Your task to perform on an android device: open sync settings in chrome Image 0: 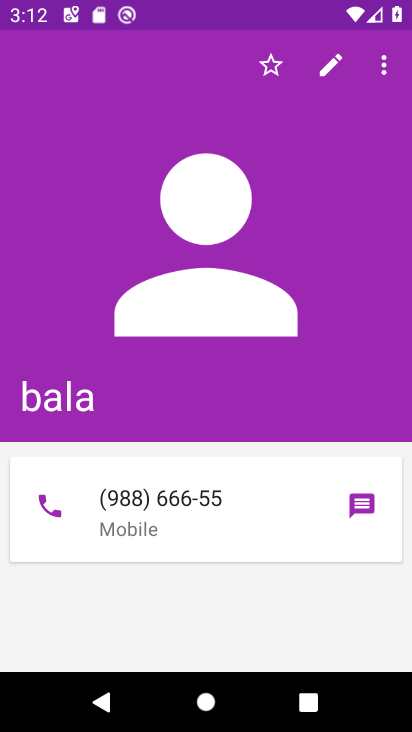
Step 0: press home button
Your task to perform on an android device: open sync settings in chrome Image 1: 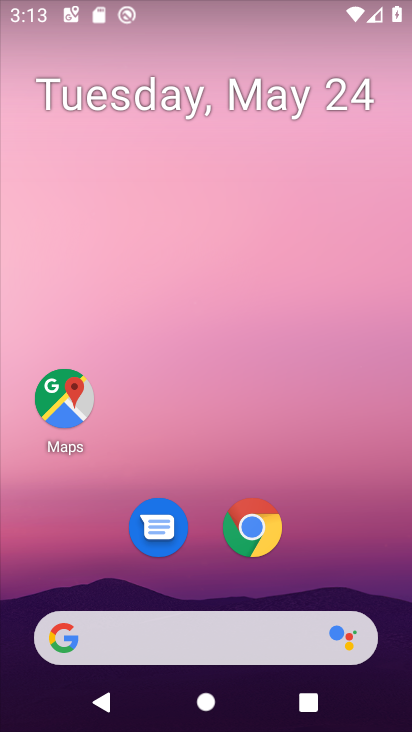
Step 1: click (254, 529)
Your task to perform on an android device: open sync settings in chrome Image 2: 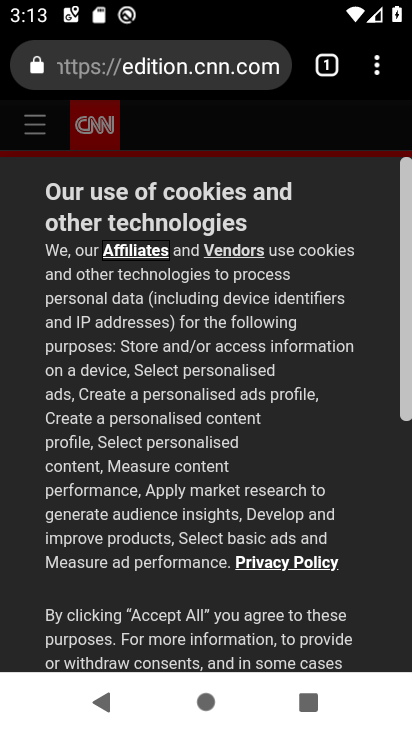
Step 2: click (379, 70)
Your task to perform on an android device: open sync settings in chrome Image 3: 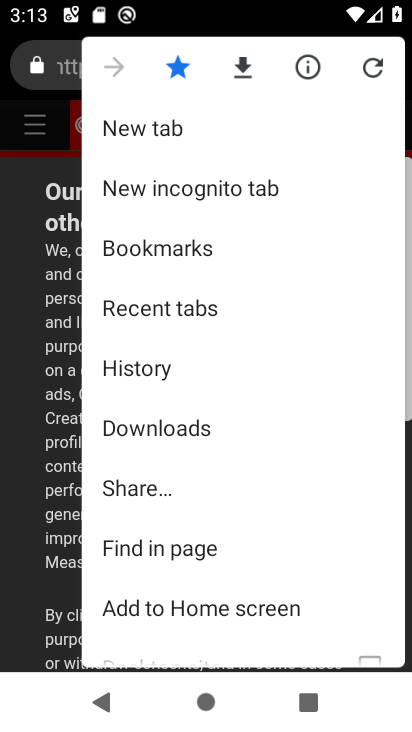
Step 3: drag from (287, 570) to (278, 348)
Your task to perform on an android device: open sync settings in chrome Image 4: 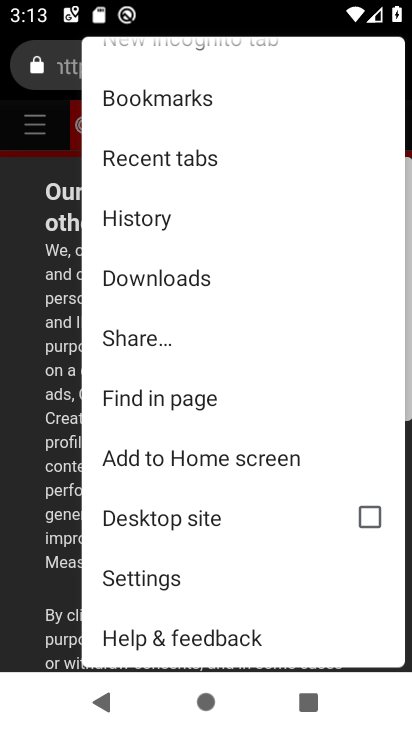
Step 4: click (125, 576)
Your task to perform on an android device: open sync settings in chrome Image 5: 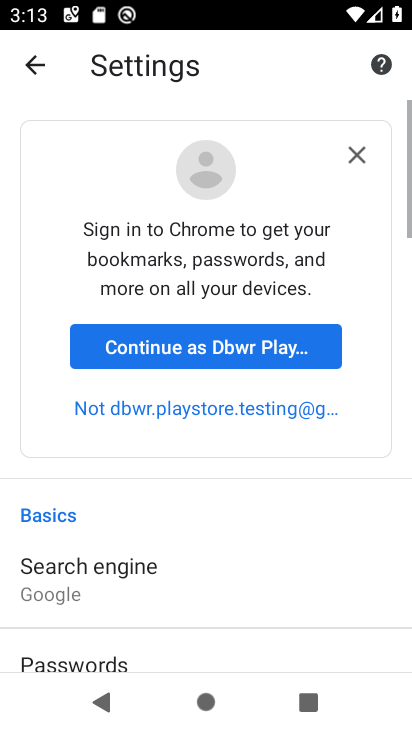
Step 5: click (204, 344)
Your task to perform on an android device: open sync settings in chrome Image 6: 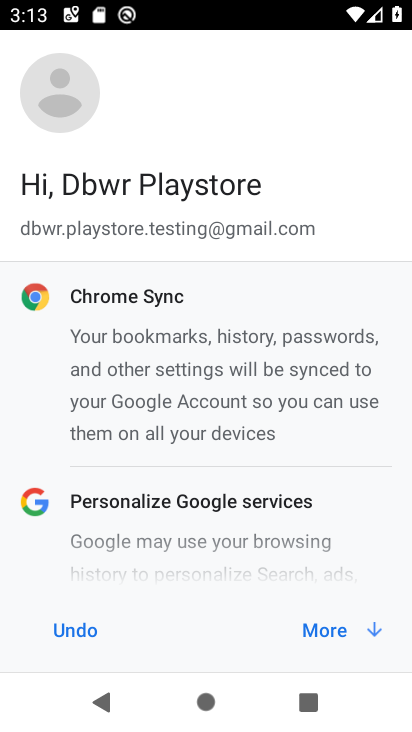
Step 6: click (319, 629)
Your task to perform on an android device: open sync settings in chrome Image 7: 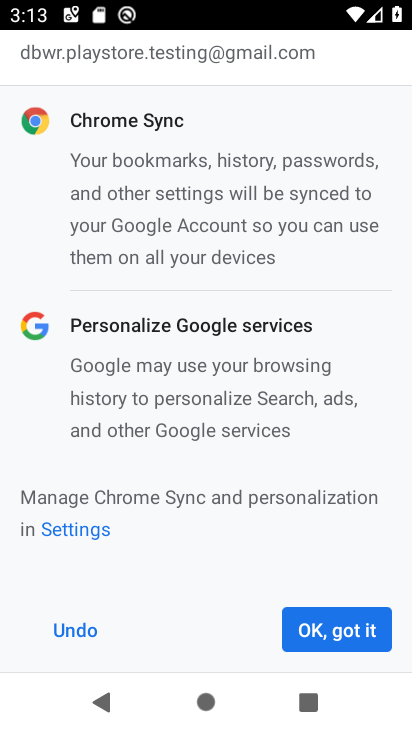
Step 7: click (319, 629)
Your task to perform on an android device: open sync settings in chrome Image 8: 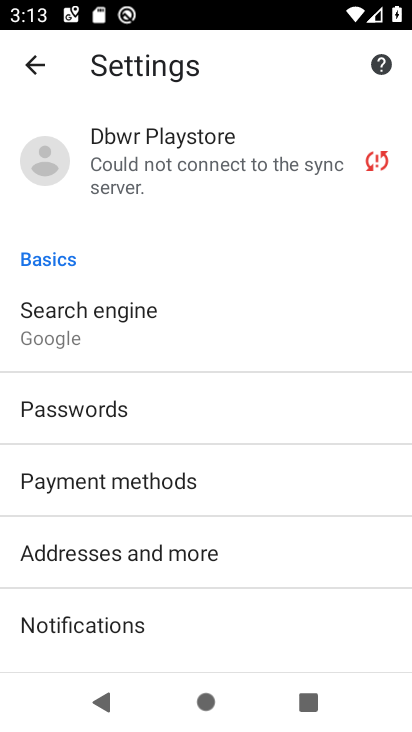
Step 8: click (154, 163)
Your task to perform on an android device: open sync settings in chrome Image 9: 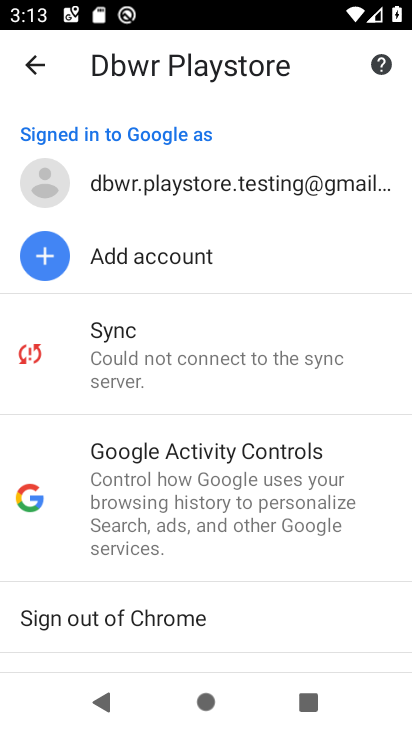
Step 9: click (137, 354)
Your task to perform on an android device: open sync settings in chrome Image 10: 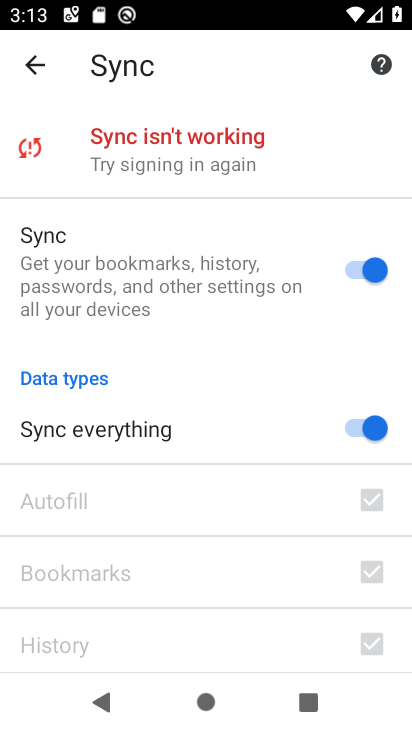
Step 10: task complete